Your task to perform on an android device: Do I have any events tomorrow? Image 0: 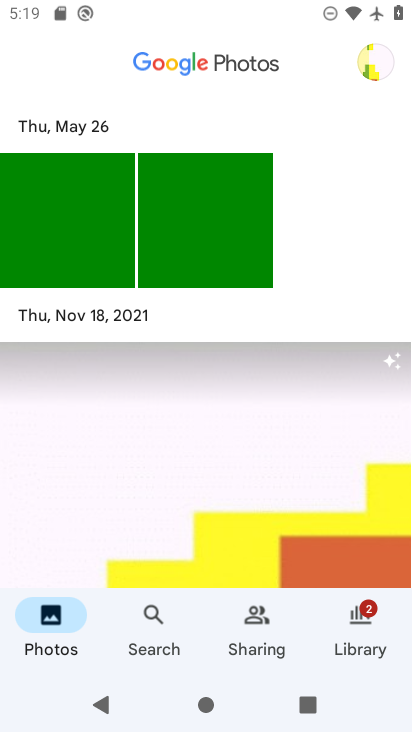
Step 0: press home button
Your task to perform on an android device: Do I have any events tomorrow? Image 1: 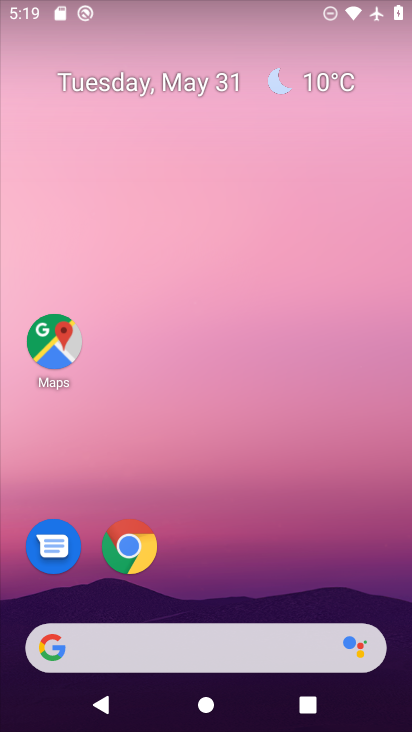
Step 1: click (179, 87)
Your task to perform on an android device: Do I have any events tomorrow? Image 2: 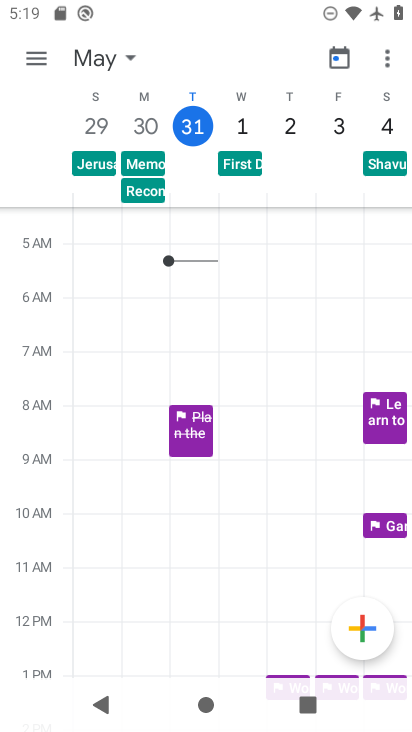
Step 2: task complete